Your task to perform on an android device: turn on improve location accuracy Image 0: 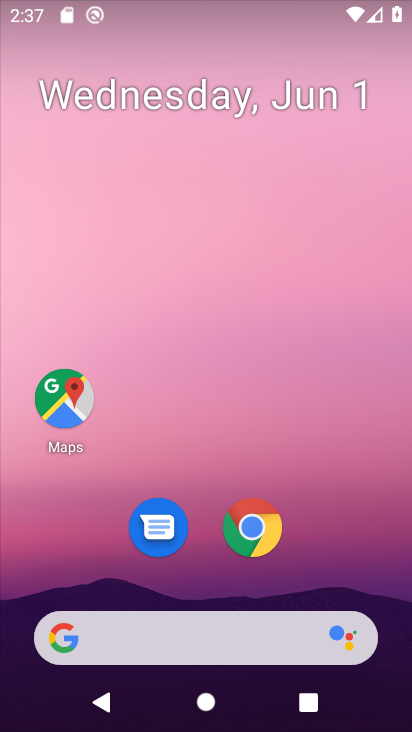
Step 0: drag from (221, 598) to (290, 64)
Your task to perform on an android device: turn on improve location accuracy Image 1: 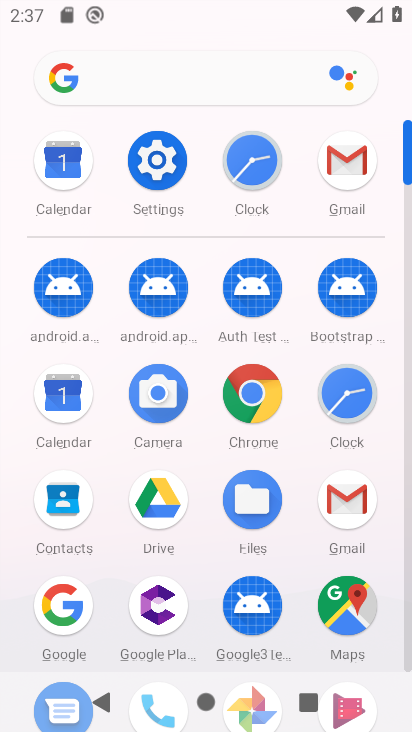
Step 1: click (143, 193)
Your task to perform on an android device: turn on improve location accuracy Image 2: 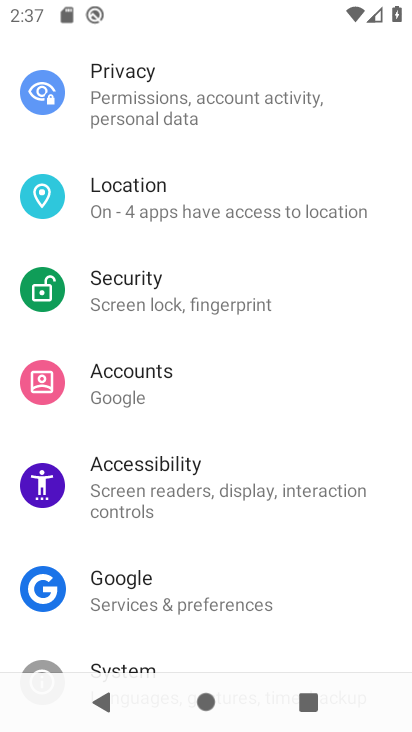
Step 2: click (187, 216)
Your task to perform on an android device: turn on improve location accuracy Image 3: 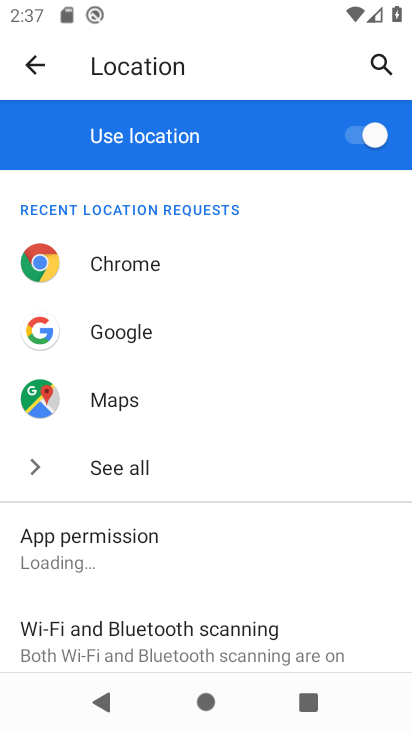
Step 3: drag from (241, 637) to (277, 384)
Your task to perform on an android device: turn on improve location accuracy Image 4: 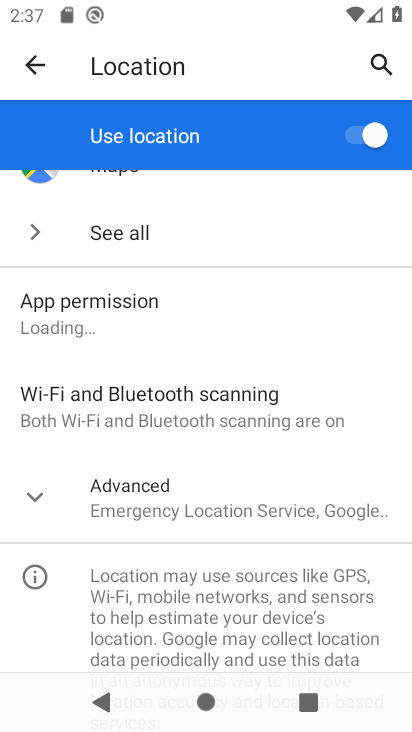
Step 4: click (163, 509)
Your task to perform on an android device: turn on improve location accuracy Image 5: 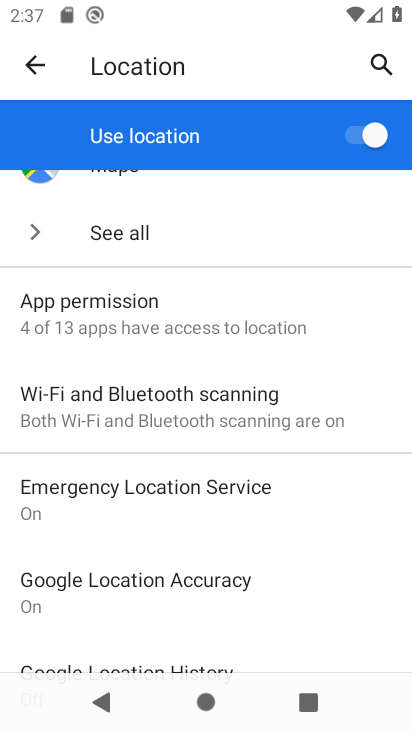
Step 5: click (170, 583)
Your task to perform on an android device: turn on improve location accuracy Image 6: 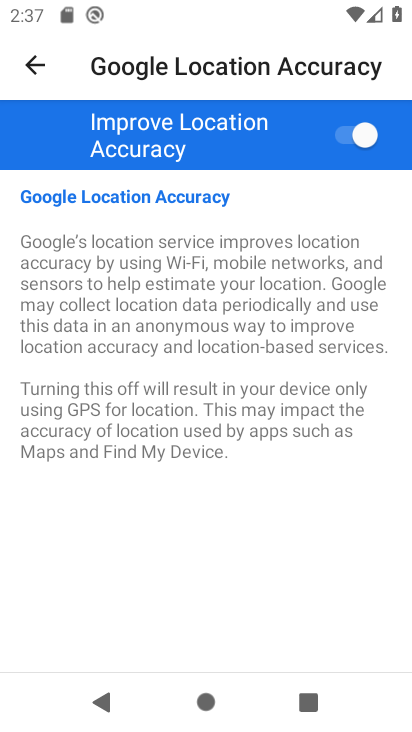
Step 6: task complete